Your task to perform on an android device: Open Chrome and go to the settings page Image 0: 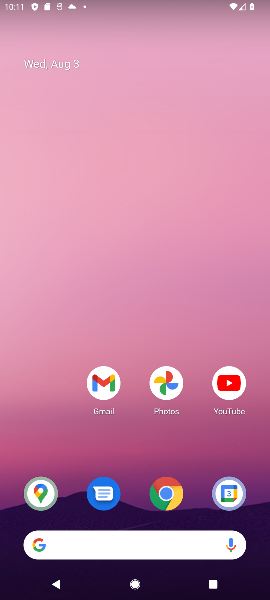
Step 0: press home button
Your task to perform on an android device: Open Chrome and go to the settings page Image 1: 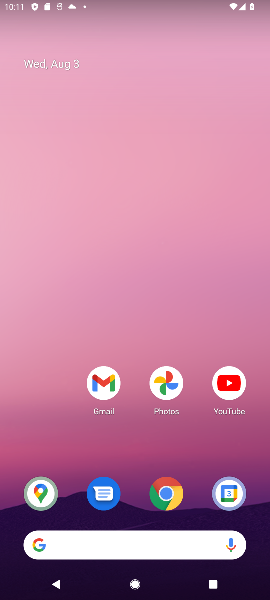
Step 1: click (170, 490)
Your task to perform on an android device: Open Chrome and go to the settings page Image 2: 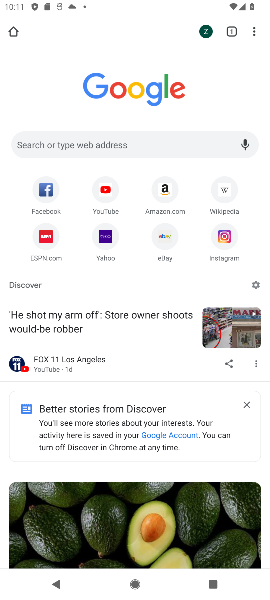
Step 2: click (255, 32)
Your task to perform on an android device: Open Chrome and go to the settings page Image 3: 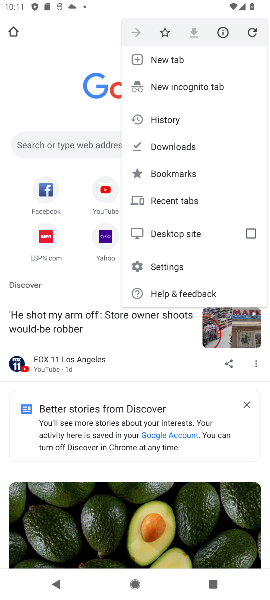
Step 3: click (185, 260)
Your task to perform on an android device: Open Chrome and go to the settings page Image 4: 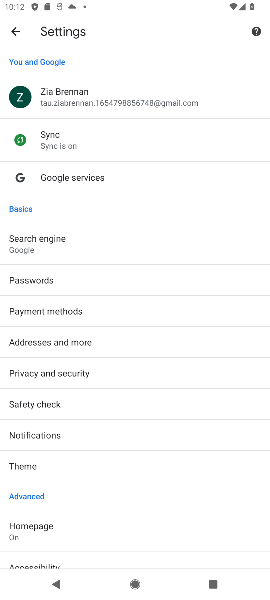
Step 4: task complete